Your task to perform on an android device: Check the news Image 0: 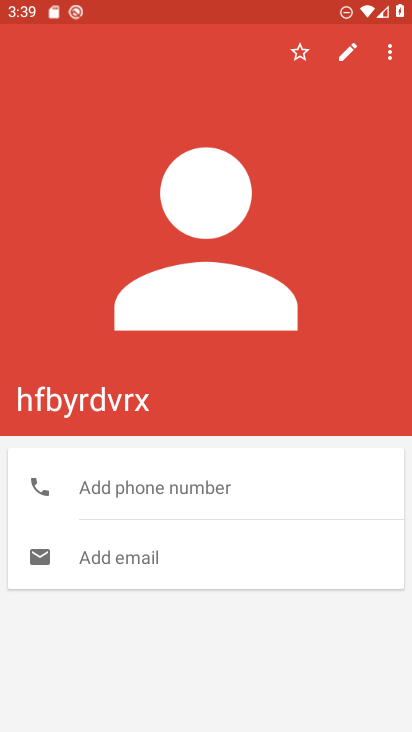
Step 0: press home button
Your task to perform on an android device: Check the news Image 1: 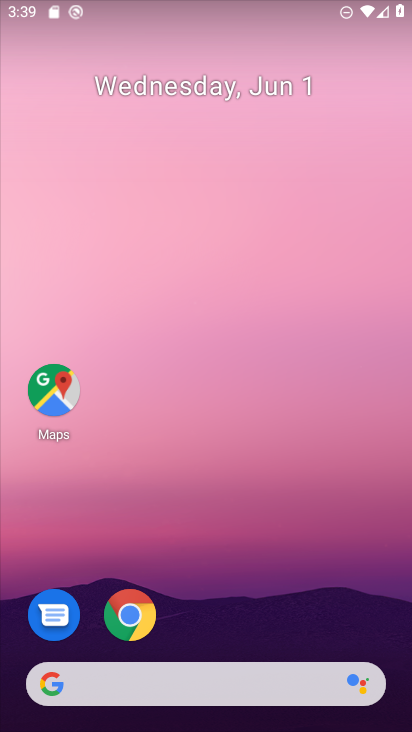
Step 1: task complete